Your task to perform on an android device: Go to eBay Image 0: 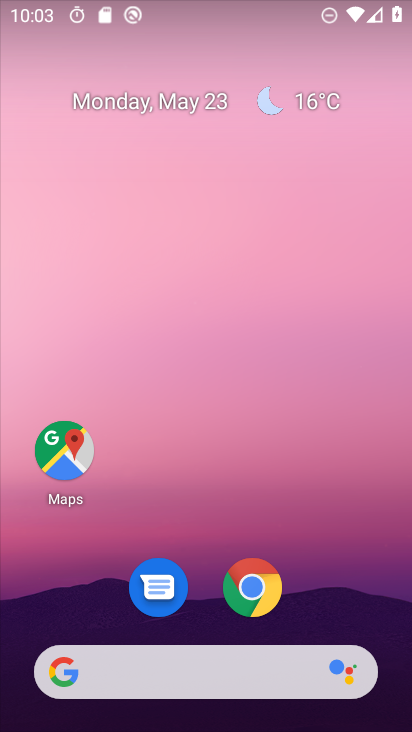
Step 0: click (255, 593)
Your task to perform on an android device: Go to eBay Image 1: 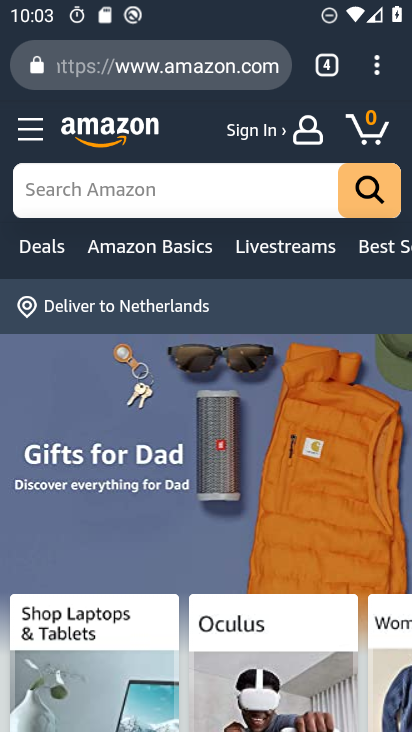
Step 1: click (333, 59)
Your task to perform on an android device: Go to eBay Image 2: 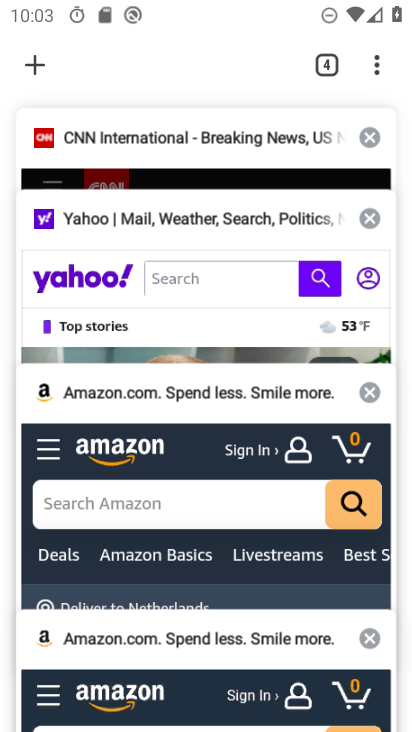
Step 2: click (39, 58)
Your task to perform on an android device: Go to eBay Image 3: 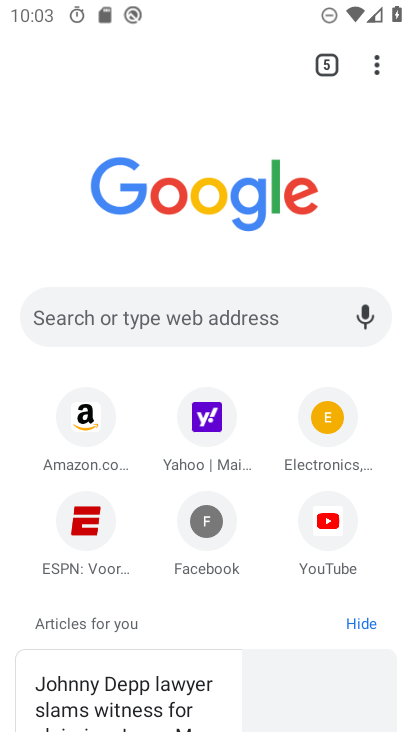
Step 3: click (140, 310)
Your task to perform on an android device: Go to eBay Image 4: 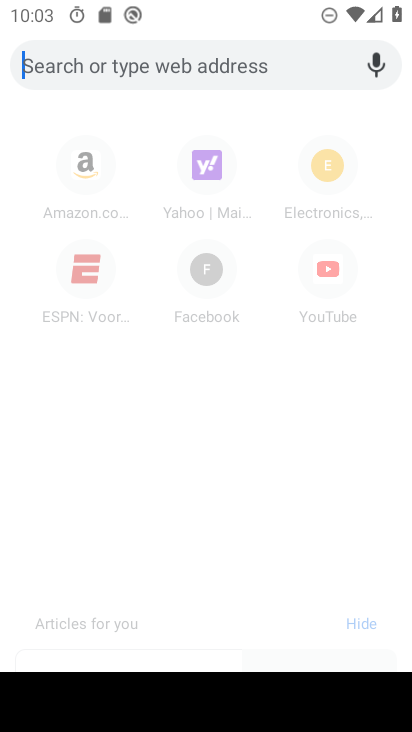
Step 4: type "ebay"
Your task to perform on an android device: Go to eBay Image 5: 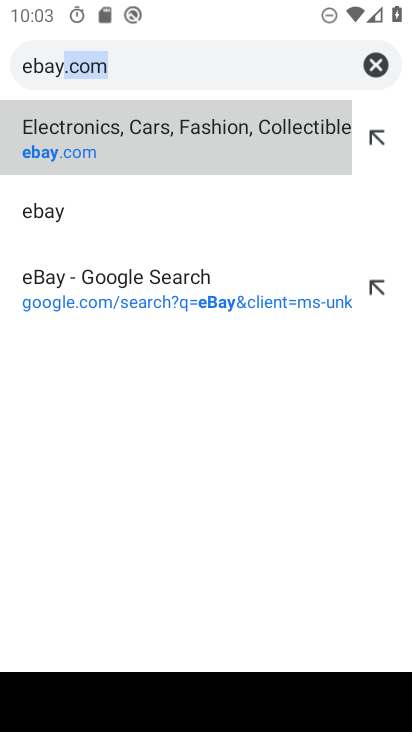
Step 5: click (148, 139)
Your task to perform on an android device: Go to eBay Image 6: 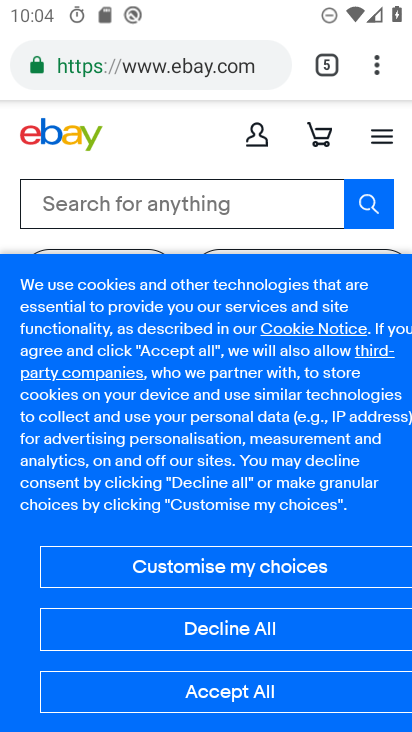
Step 6: task complete